Your task to perform on an android device: turn off notifications in google photos Image 0: 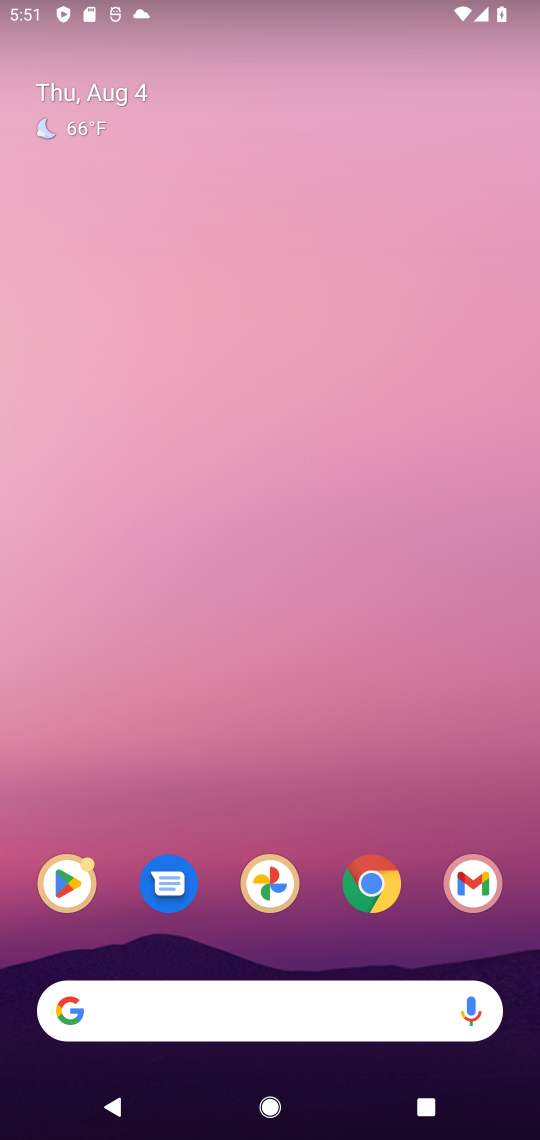
Step 0: drag from (235, 905) to (395, 83)
Your task to perform on an android device: turn off notifications in google photos Image 1: 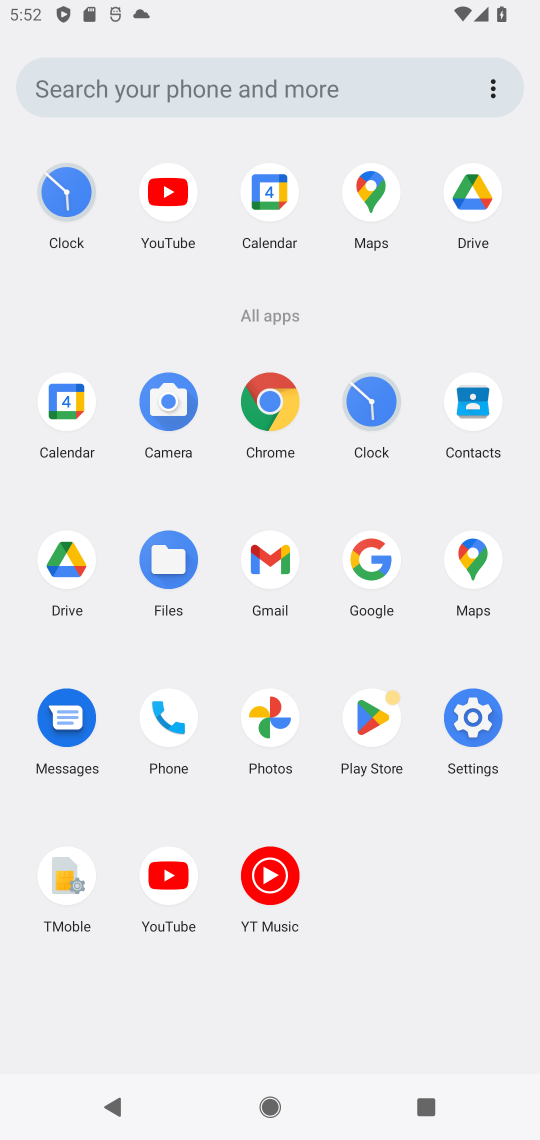
Step 1: click (262, 734)
Your task to perform on an android device: turn off notifications in google photos Image 2: 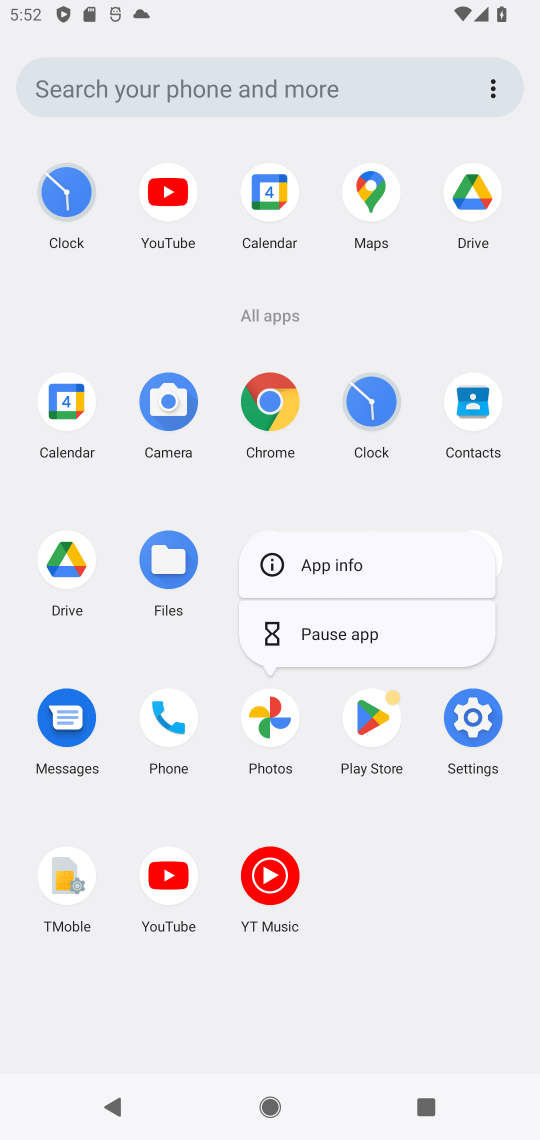
Step 2: click (338, 573)
Your task to perform on an android device: turn off notifications in google photos Image 3: 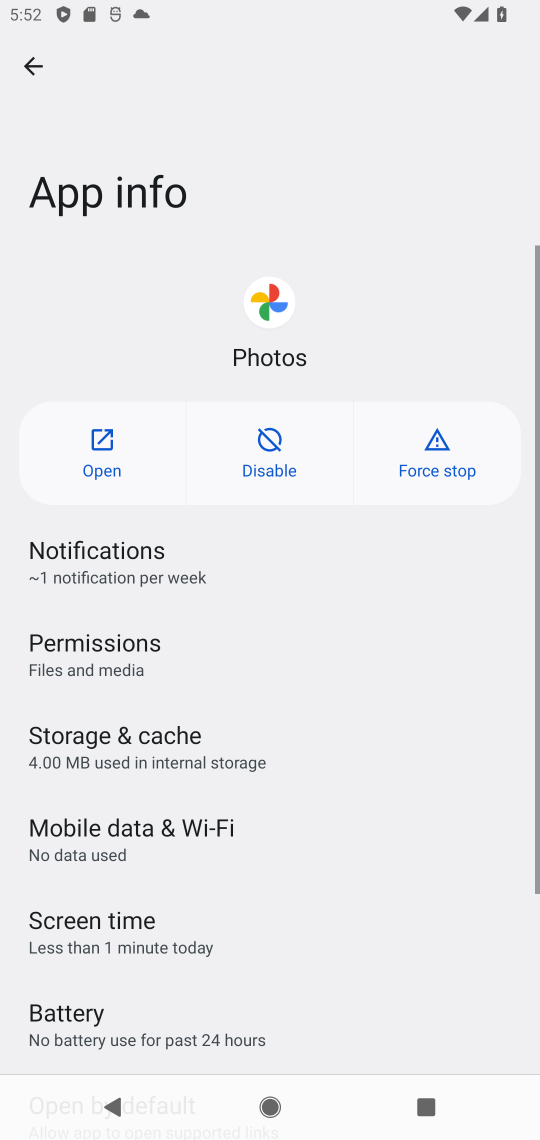
Step 3: click (190, 557)
Your task to perform on an android device: turn off notifications in google photos Image 4: 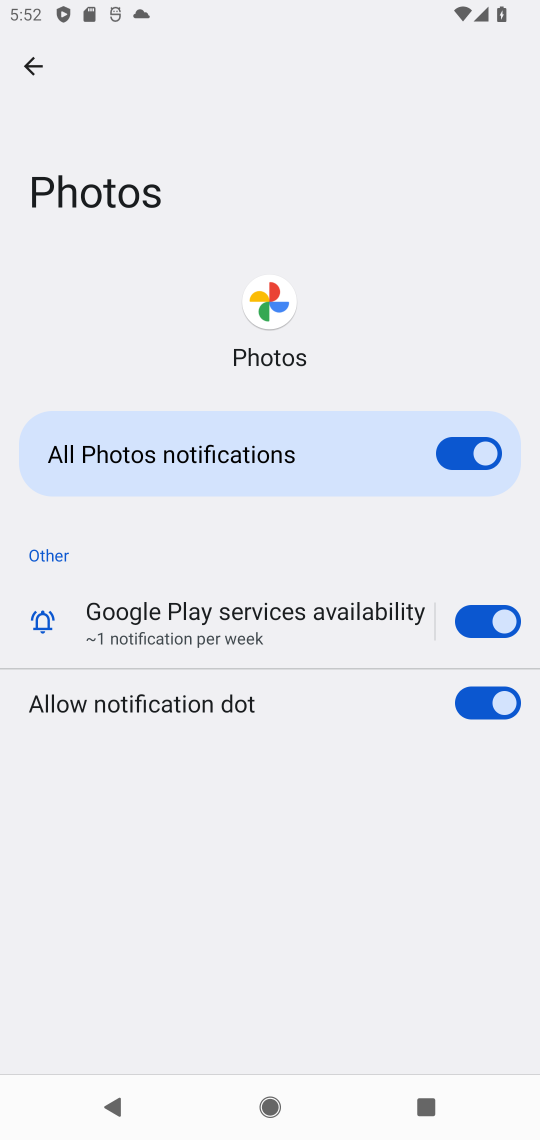
Step 4: click (466, 456)
Your task to perform on an android device: turn off notifications in google photos Image 5: 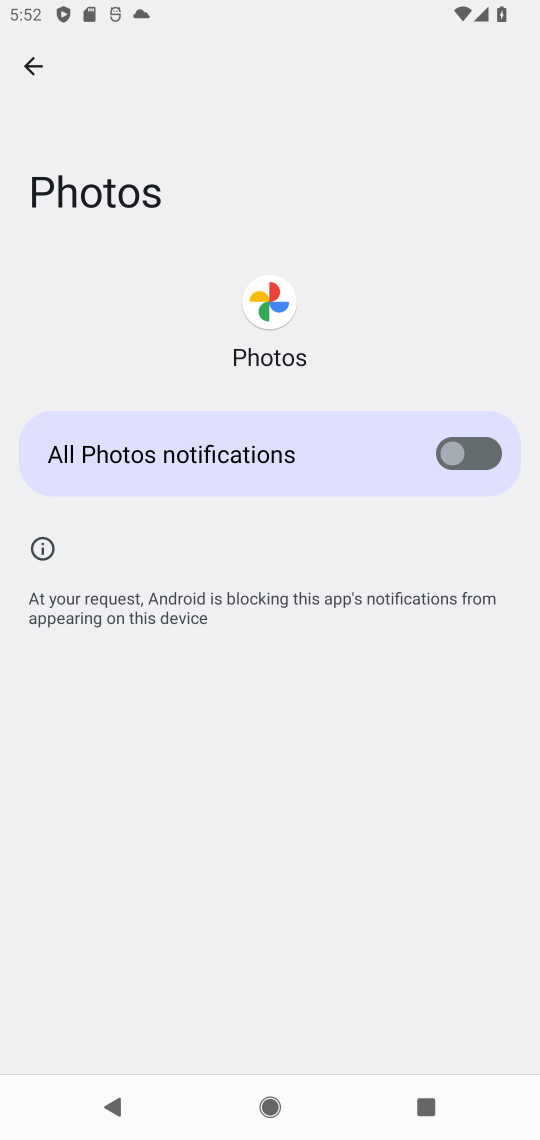
Step 5: task complete